Your task to perform on an android device: Show me recent news Image 0: 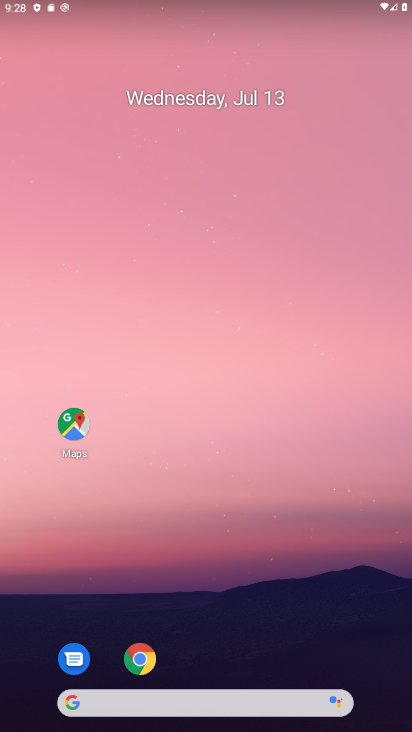
Step 0: drag from (12, 339) to (349, 320)
Your task to perform on an android device: Show me recent news Image 1: 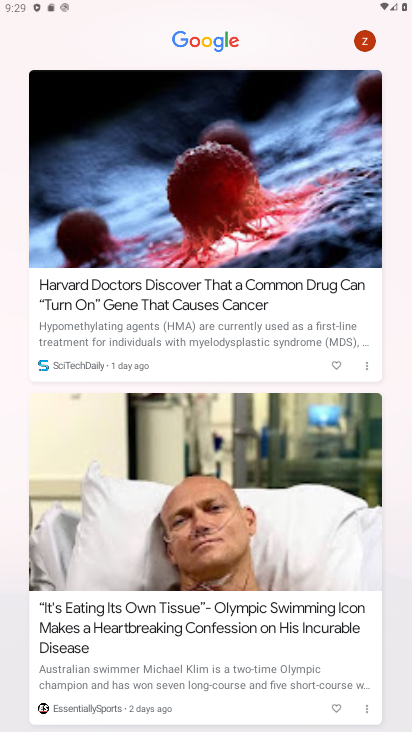
Step 1: task complete